Your task to perform on an android device: View the shopping cart on newegg.com. Search for apple airpods pro on newegg.com, select the first entry, add it to the cart, then select checkout. Image 0: 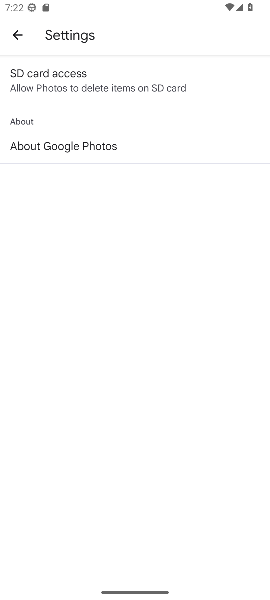
Step 0: press home button
Your task to perform on an android device: View the shopping cart on newegg.com. Search for apple airpods pro on newegg.com, select the first entry, add it to the cart, then select checkout. Image 1: 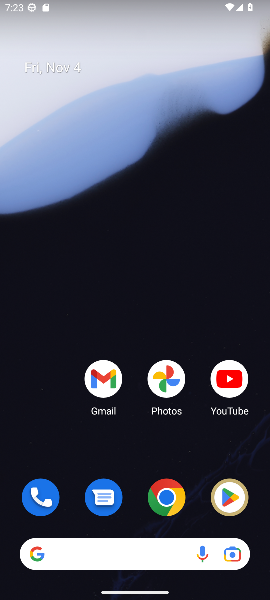
Step 1: click (161, 498)
Your task to perform on an android device: View the shopping cart on newegg.com. Search for apple airpods pro on newegg.com, select the first entry, add it to the cart, then select checkout. Image 2: 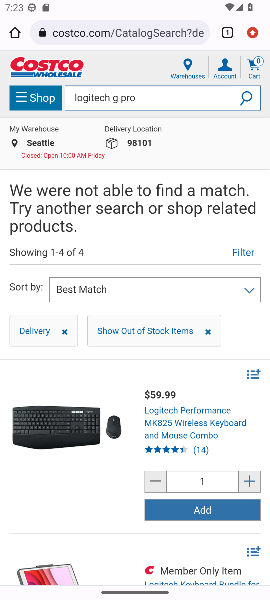
Step 2: click (120, 32)
Your task to perform on an android device: View the shopping cart on newegg.com. Search for apple airpods pro on newegg.com, select the first entry, add it to the cart, then select checkout. Image 3: 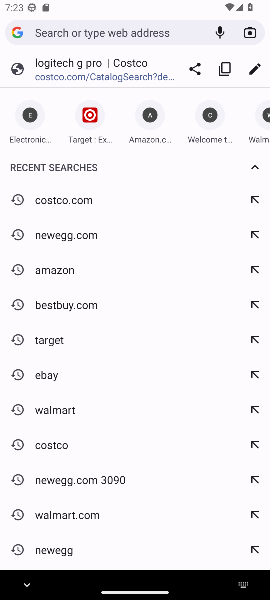
Step 3: click (79, 241)
Your task to perform on an android device: View the shopping cart on newegg.com. Search for apple airpods pro on newegg.com, select the first entry, add it to the cart, then select checkout. Image 4: 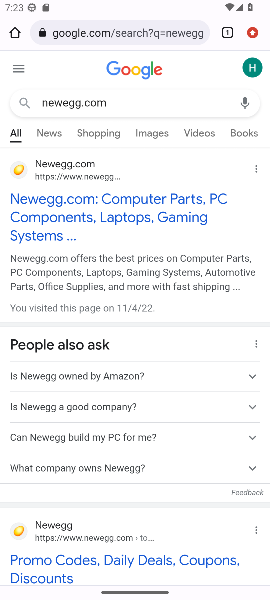
Step 4: click (76, 216)
Your task to perform on an android device: View the shopping cart on newegg.com. Search for apple airpods pro on newegg.com, select the first entry, add it to the cart, then select checkout. Image 5: 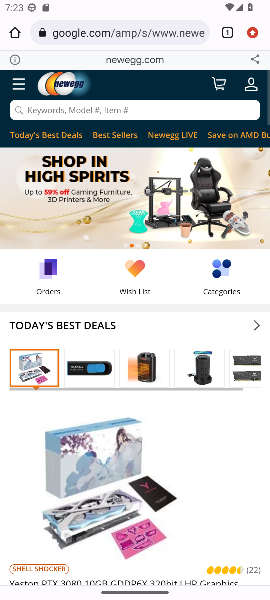
Step 5: click (216, 87)
Your task to perform on an android device: View the shopping cart on newegg.com. Search for apple airpods pro on newegg.com, select the first entry, add it to the cart, then select checkout. Image 6: 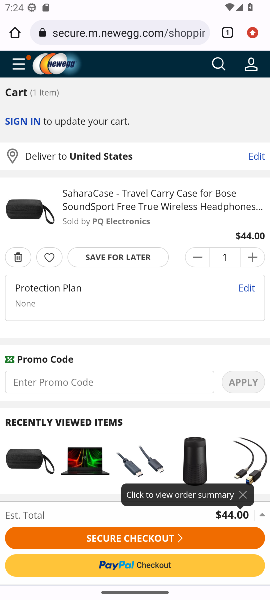
Step 6: click (213, 66)
Your task to perform on an android device: View the shopping cart on newegg.com. Search for apple airpods pro on newegg.com, select the first entry, add it to the cart, then select checkout. Image 7: 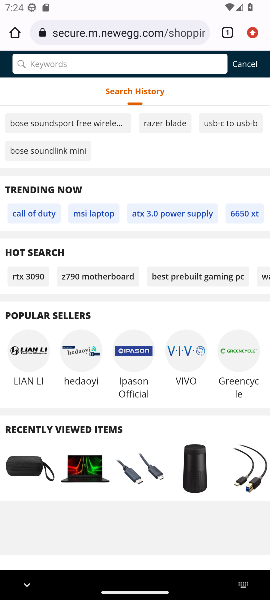
Step 7: click (93, 74)
Your task to perform on an android device: View the shopping cart on newegg.com. Search for apple airpods pro on newegg.com, select the first entry, add it to the cart, then select checkout. Image 8: 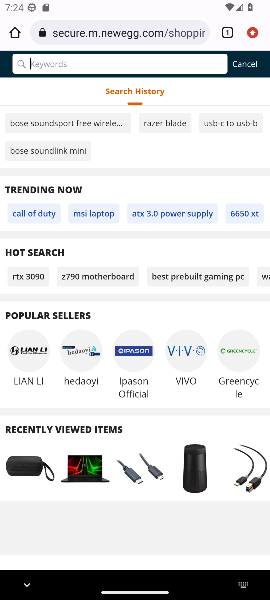
Step 8: type "apple airpods pro "
Your task to perform on an android device: View the shopping cart on newegg.com. Search for apple airpods pro on newegg.com, select the first entry, add it to the cart, then select checkout. Image 9: 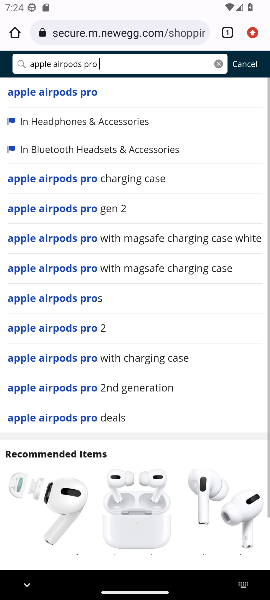
Step 9: click (56, 96)
Your task to perform on an android device: View the shopping cart on newegg.com. Search for apple airpods pro on newegg.com, select the first entry, add it to the cart, then select checkout. Image 10: 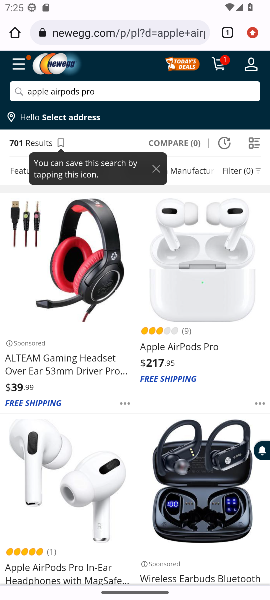
Step 10: drag from (85, 436) to (89, 330)
Your task to perform on an android device: View the shopping cart on newegg.com. Search for apple airpods pro on newegg.com, select the first entry, add it to the cart, then select checkout. Image 11: 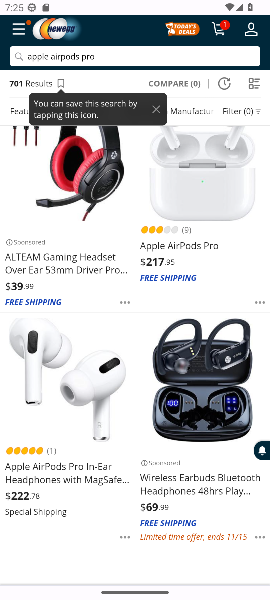
Step 11: click (72, 202)
Your task to perform on an android device: View the shopping cart on newegg.com. Search for apple airpods pro on newegg.com, select the first entry, add it to the cart, then select checkout. Image 12: 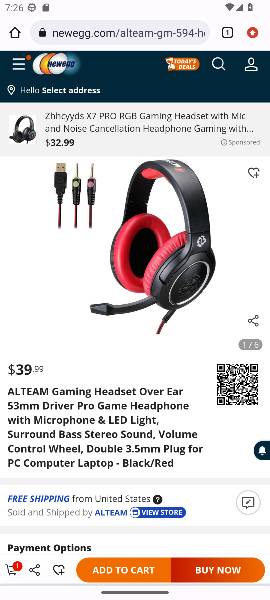
Step 12: task complete